Your task to perform on an android device: delete browsing data in the chrome app Image 0: 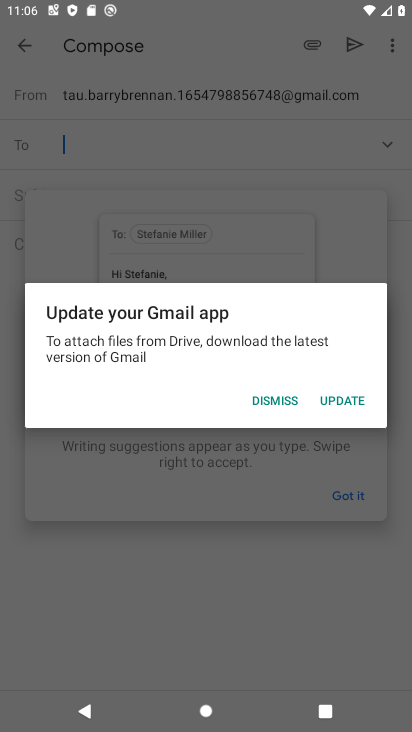
Step 0: press home button
Your task to perform on an android device: delete browsing data in the chrome app Image 1: 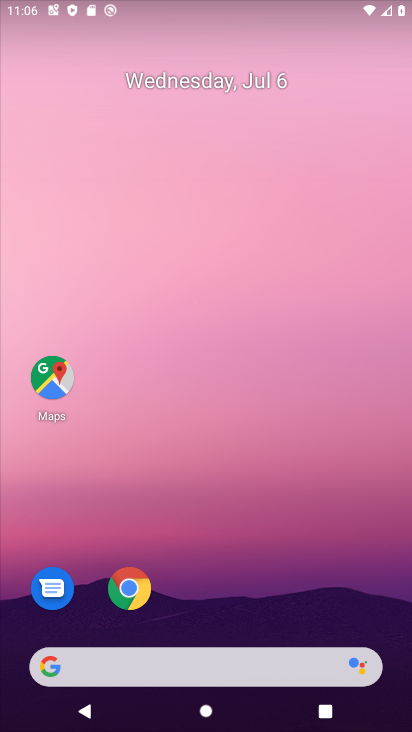
Step 1: drag from (179, 599) to (209, 368)
Your task to perform on an android device: delete browsing data in the chrome app Image 2: 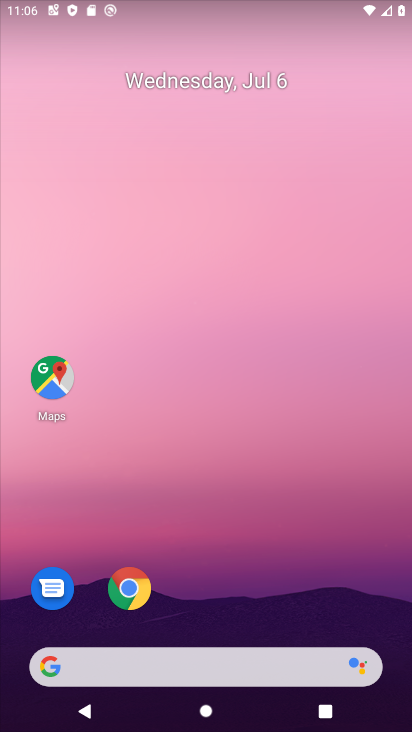
Step 2: drag from (190, 614) to (179, 249)
Your task to perform on an android device: delete browsing data in the chrome app Image 3: 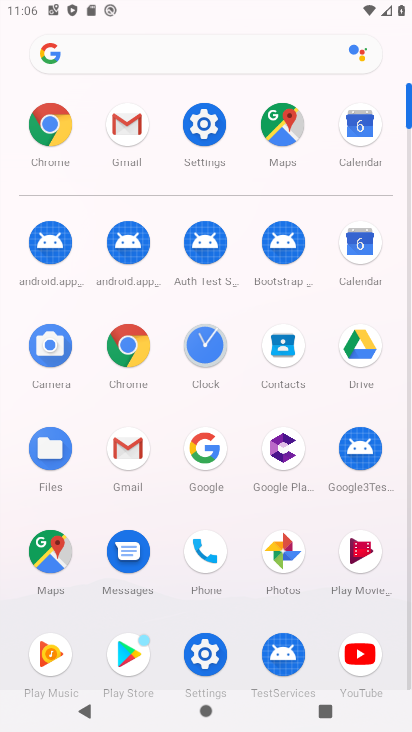
Step 3: click (48, 122)
Your task to perform on an android device: delete browsing data in the chrome app Image 4: 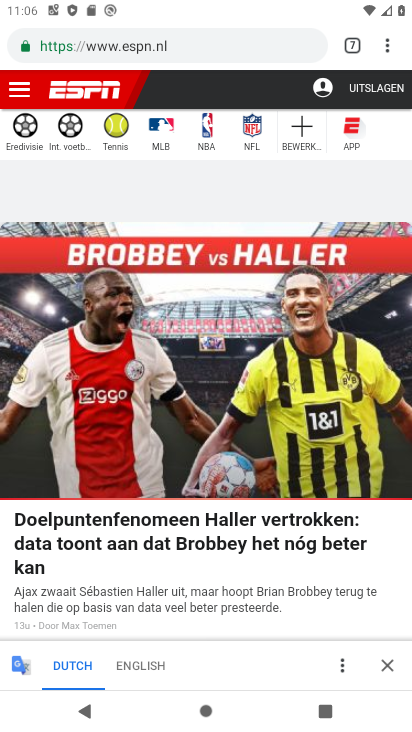
Step 4: click (384, 52)
Your task to perform on an android device: delete browsing data in the chrome app Image 5: 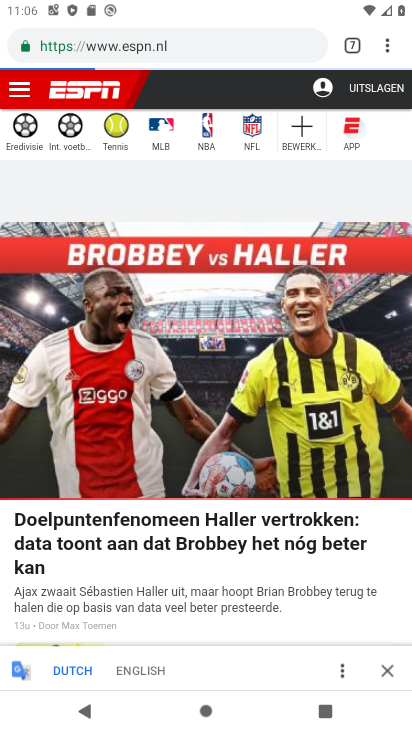
Step 5: click (382, 48)
Your task to perform on an android device: delete browsing data in the chrome app Image 6: 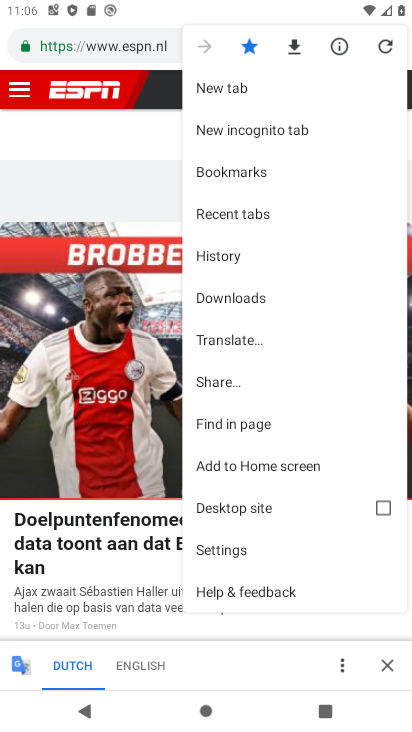
Step 6: click (226, 552)
Your task to perform on an android device: delete browsing data in the chrome app Image 7: 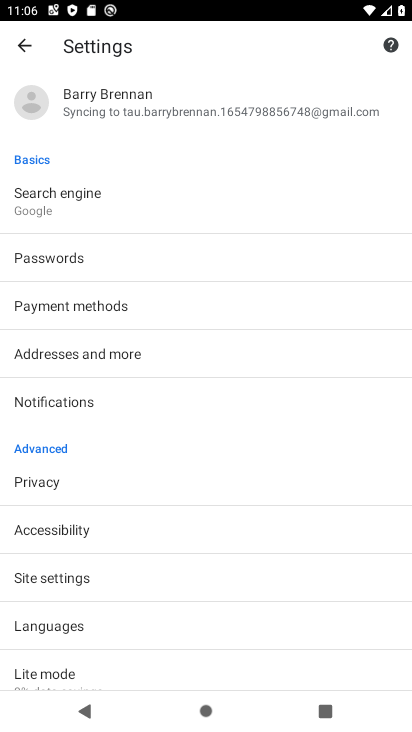
Step 7: click (106, 488)
Your task to perform on an android device: delete browsing data in the chrome app Image 8: 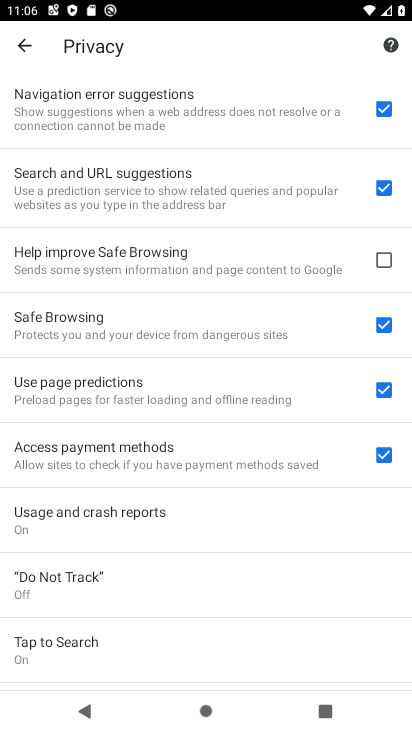
Step 8: drag from (199, 576) to (177, 179)
Your task to perform on an android device: delete browsing data in the chrome app Image 9: 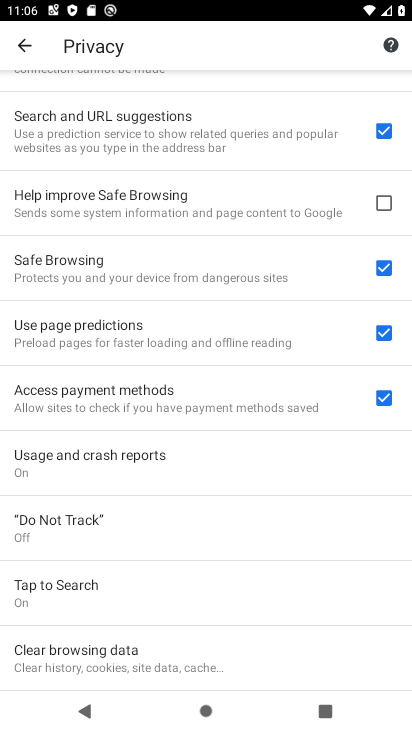
Step 9: click (161, 651)
Your task to perform on an android device: delete browsing data in the chrome app Image 10: 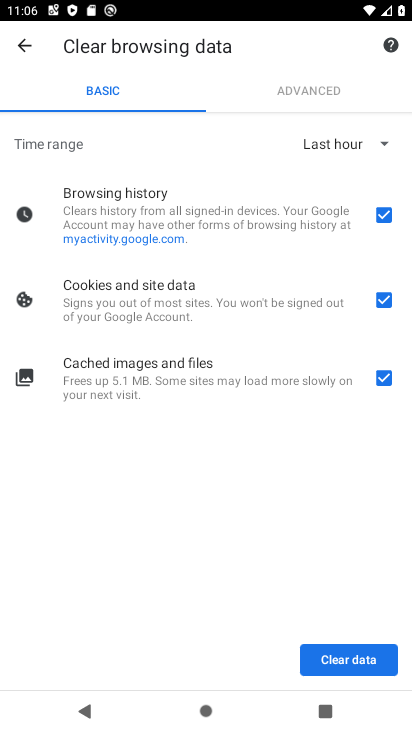
Step 10: click (362, 662)
Your task to perform on an android device: delete browsing data in the chrome app Image 11: 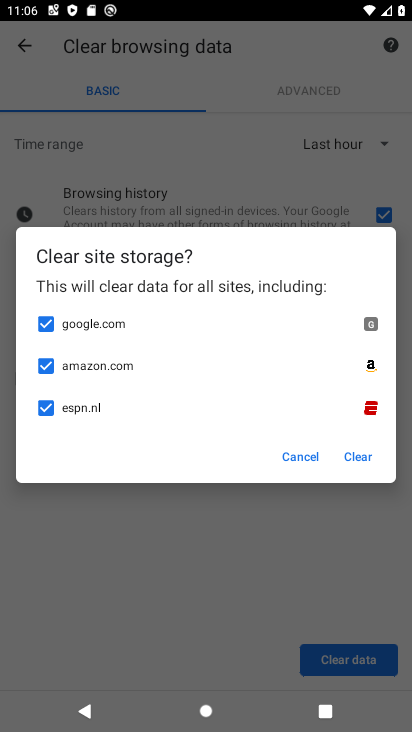
Step 11: click (353, 448)
Your task to perform on an android device: delete browsing data in the chrome app Image 12: 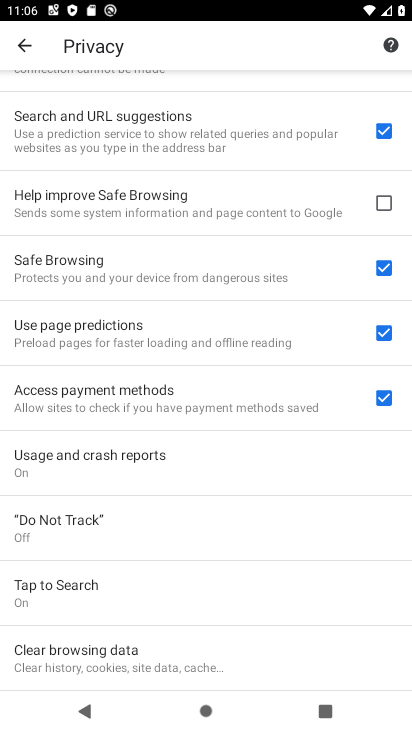
Step 12: task complete